Your task to perform on an android device: find which apps use the phone's location Image 0: 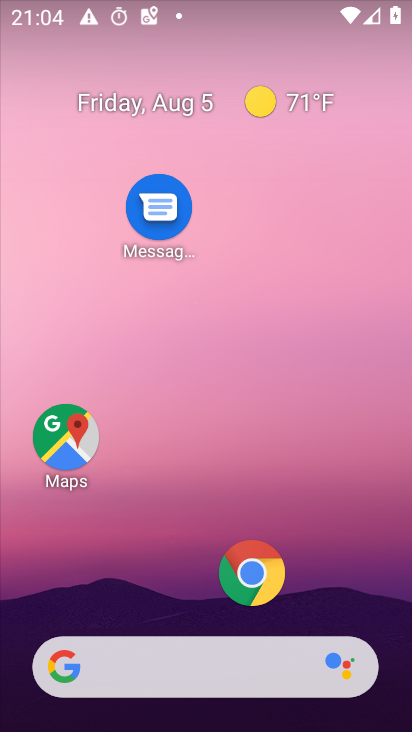
Step 0: drag from (187, 608) to (265, 1)
Your task to perform on an android device: find which apps use the phone's location Image 1: 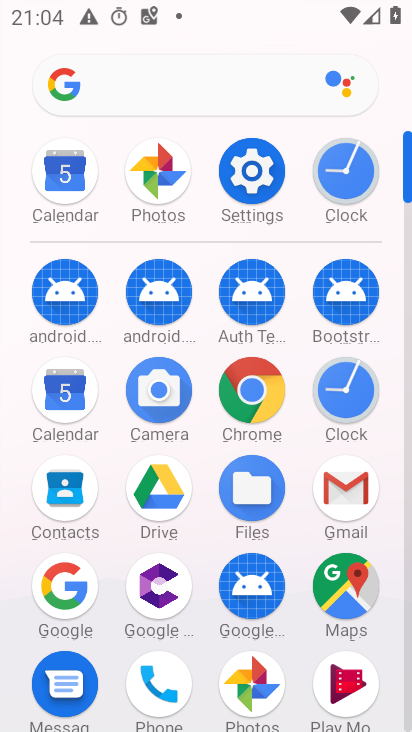
Step 1: click (248, 161)
Your task to perform on an android device: find which apps use the phone's location Image 2: 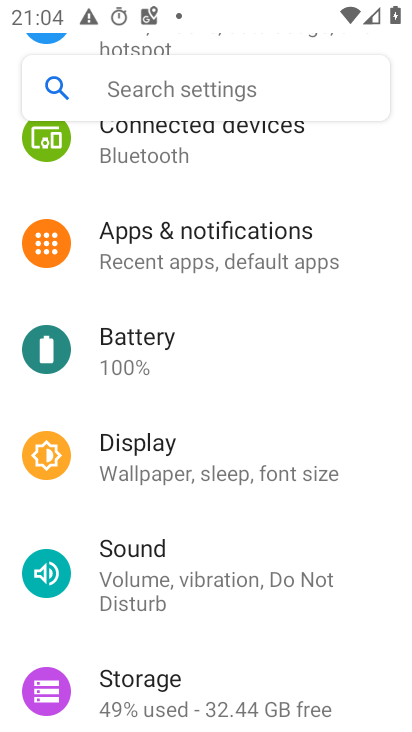
Step 2: drag from (197, 556) to (284, 16)
Your task to perform on an android device: find which apps use the phone's location Image 3: 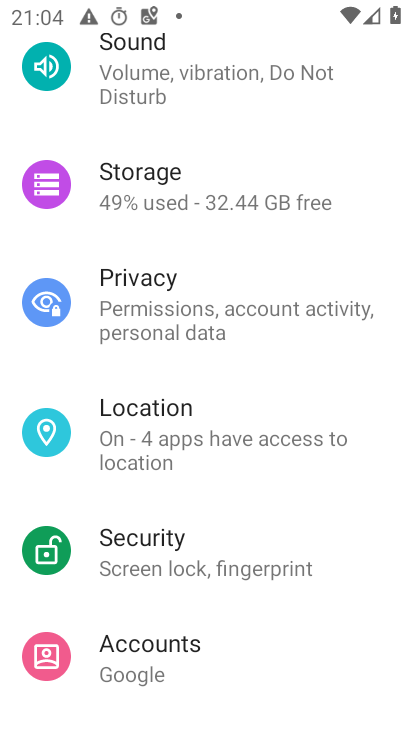
Step 3: click (186, 406)
Your task to perform on an android device: find which apps use the phone's location Image 4: 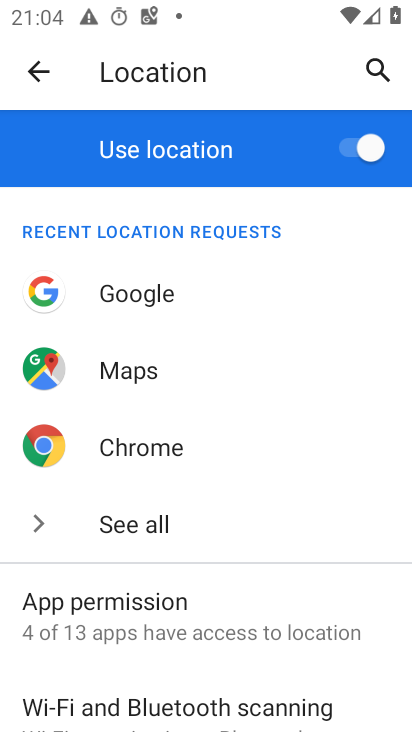
Step 4: click (215, 608)
Your task to perform on an android device: find which apps use the phone's location Image 5: 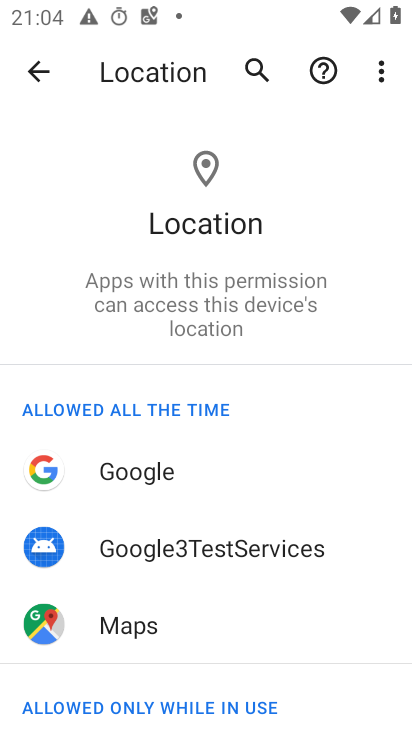
Step 5: task complete